Your task to perform on an android device: turn pop-ups off in chrome Image 0: 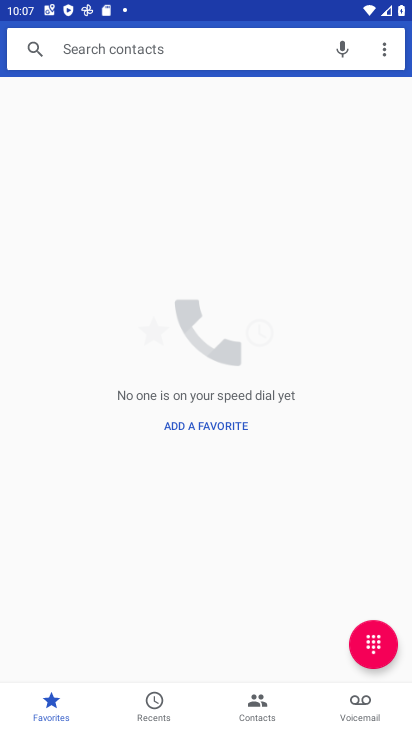
Step 0: press home button
Your task to perform on an android device: turn pop-ups off in chrome Image 1: 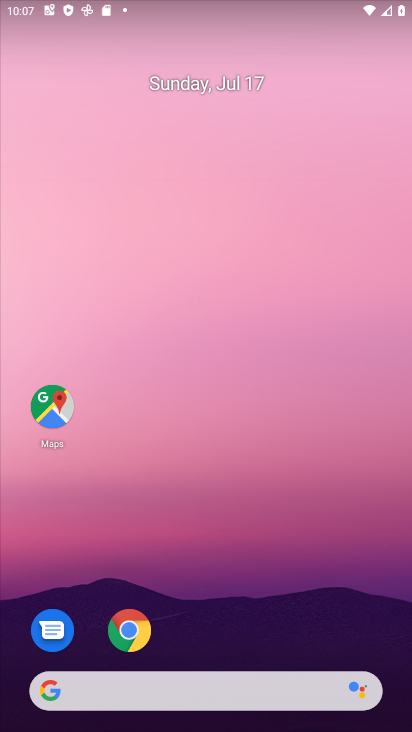
Step 1: click (141, 629)
Your task to perform on an android device: turn pop-ups off in chrome Image 2: 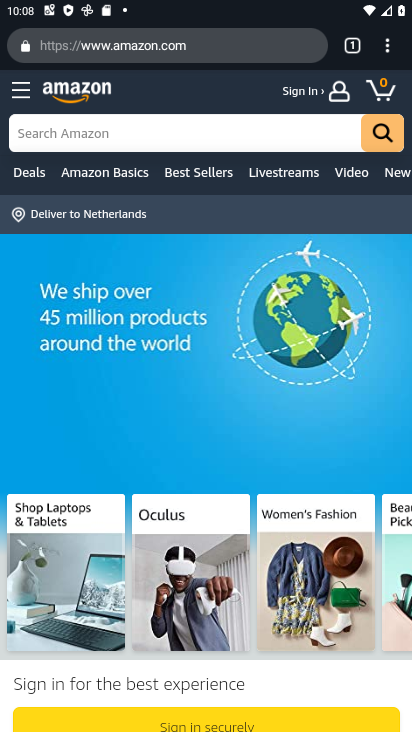
Step 2: click (384, 52)
Your task to perform on an android device: turn pop-ups off in chrome Image 3: 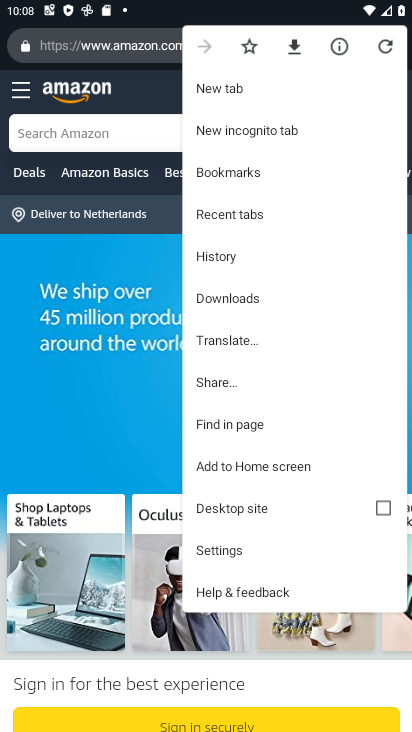
Step 3: click (228, 540)
Your task to perform on an android device: turn pop-ups off in chrome Image 4: 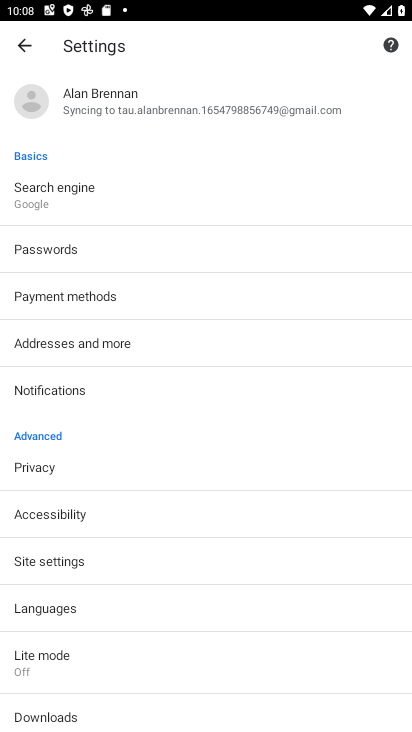
Step 4: click (134, 559)
Your task to perform on an android device: turn pop-ups off in chrome Image 5: 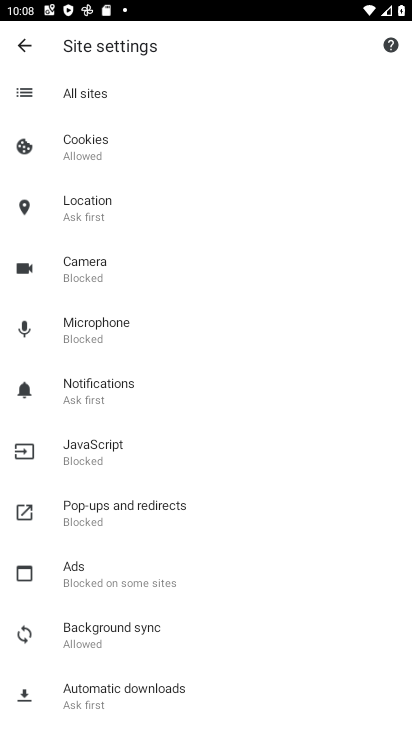
Step 5: click (165, 515)
Your task to perform on an android device: turn pop-ups off in chrome Image 6: 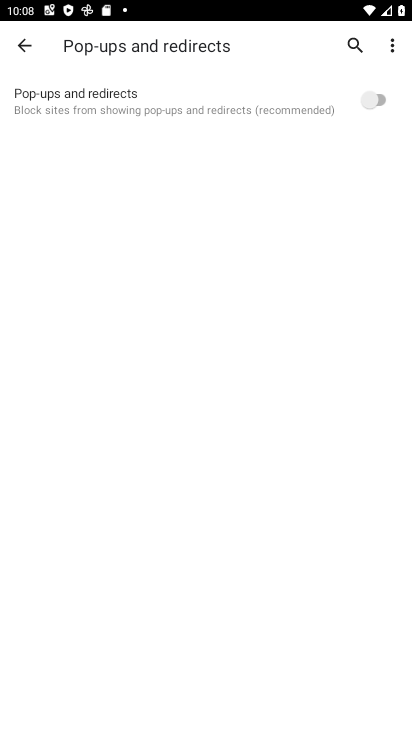
Step 6: click (367, 92)
Your task to perform on an android device: turn pop-ups off in chrome Image 7: 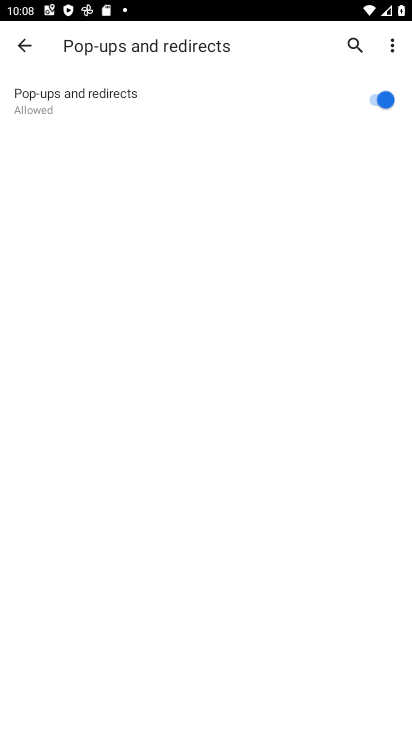
Step 7: task complete